Your task to perform on an android device: Go to Android settings Image 0: 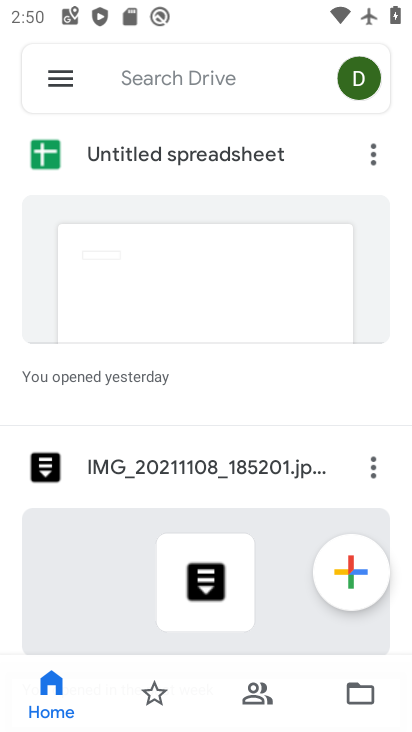
Step 0: press home button
Your task to perform on an android device: Go to Android settings Image 1: 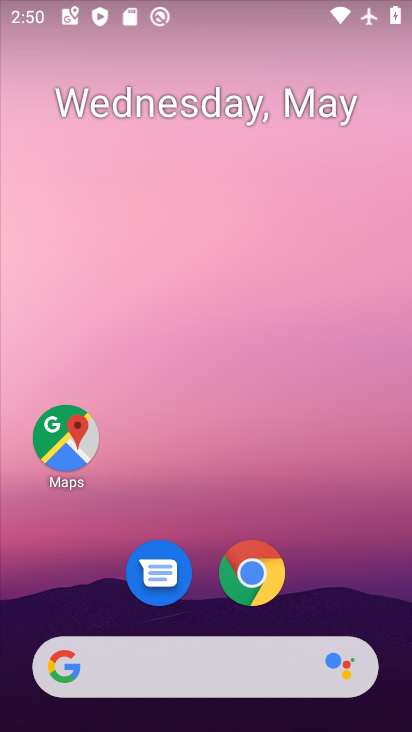
Step 1: drag from (330, 605) to (329, 15)
Your task to perform on an android device: Go to Android settings Image 2: 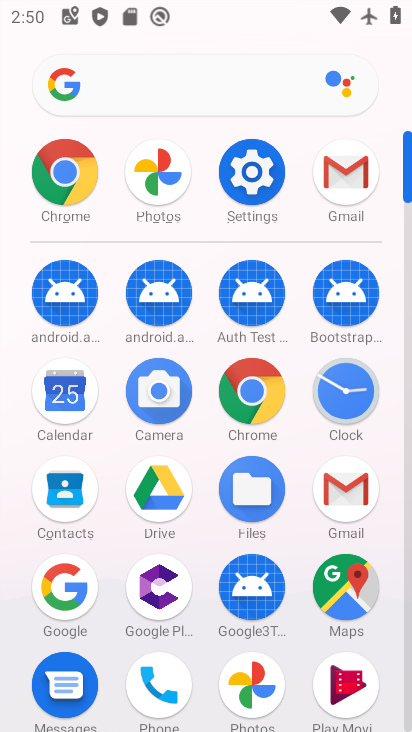
Step 2: click (256, 170)
Your task to perform on an android device: Go to Android settings Image 3: 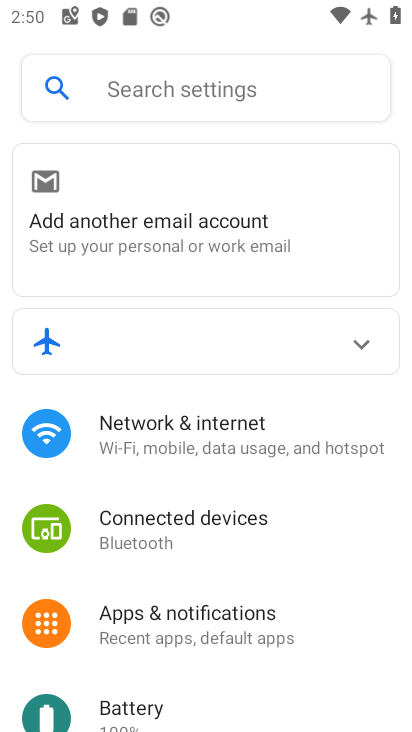
Step 3: drag from (248, 582) to (350, 128)
Your task to perform on an android device: Go to Android settings Image 4: 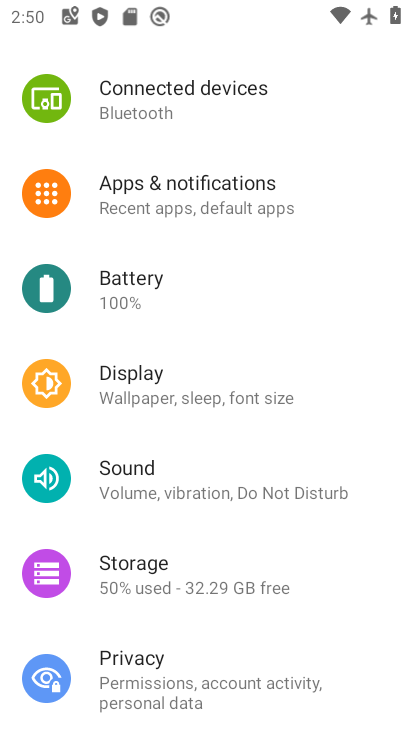
Step 4: drag from (271, 584) to (354, 175)
Your task to perform on an android device: Go to Android settings Image 5: 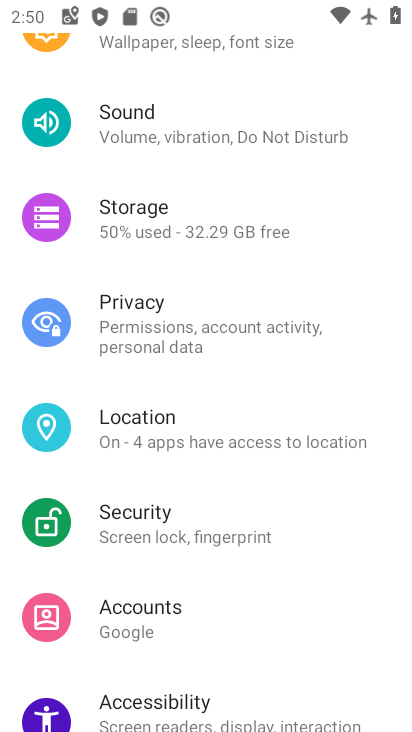
Step 5: drag from (188, 643) to (204, 319)
Your task to perform on an android device: Go to Android settings Image 6: 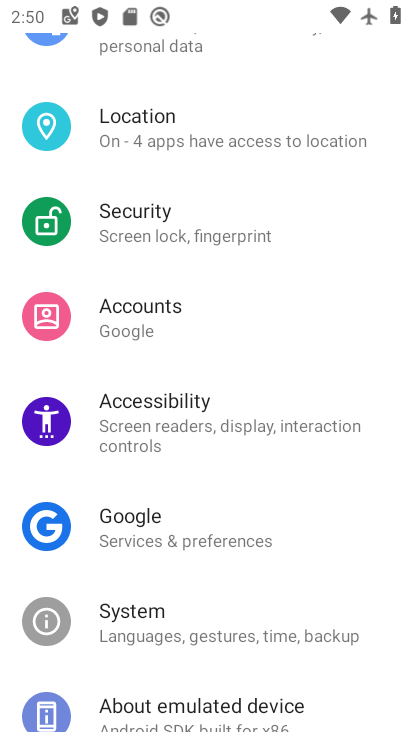
Step 6: click (201, 631)
Your task to perform on an android device: Go to Android settings Image 7: 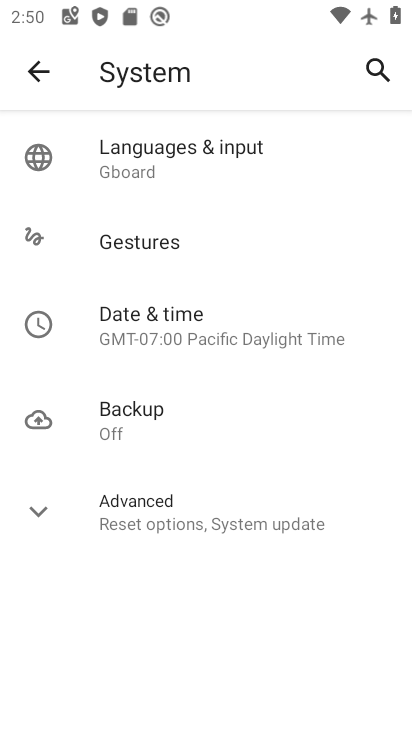
Step 7: task complete